Your task to perform on an android device: Go to sound settings Image 0: 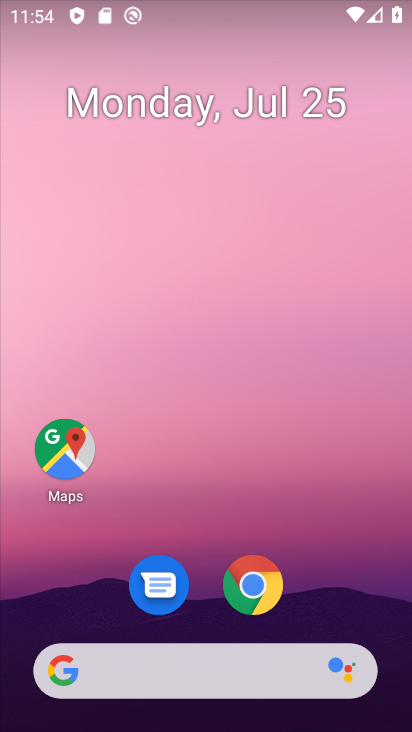
Step 0: drag from (325, 565) to (303, 31)
Your task to perform on an android device: Go to sound settings Image 1: 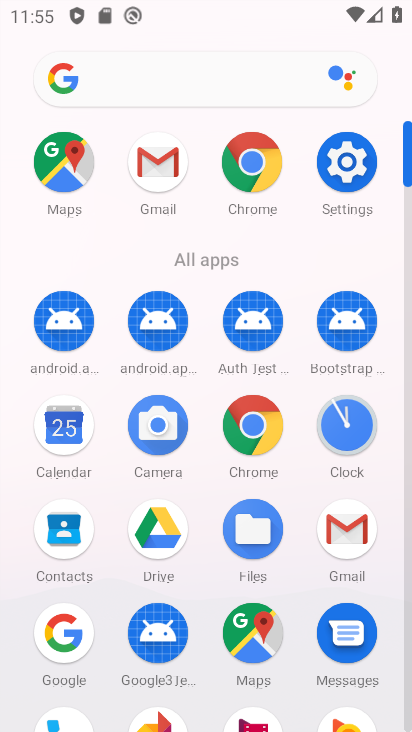
Step 1: click (335, 157)
Your task to perform on an android device: Go to sound settings Image 2: 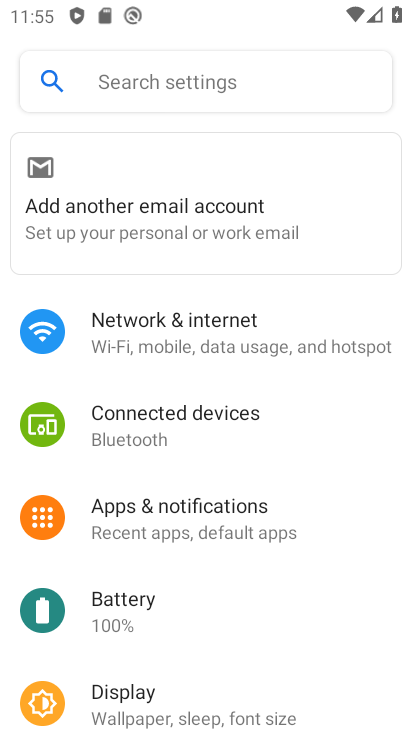
Step 2: drag from (198, 639) to (208, 197)
Your task to perform on an android device: Go to sound settings Image 3: 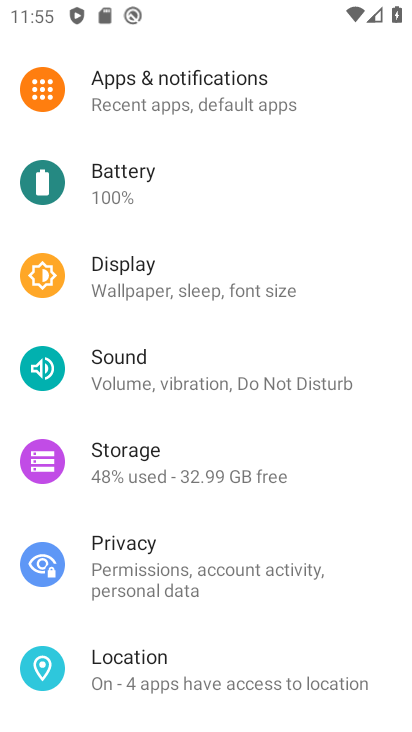
Step 3: click (220, 373)
Your task to perform on an android device: Go to sound settings Image 4: 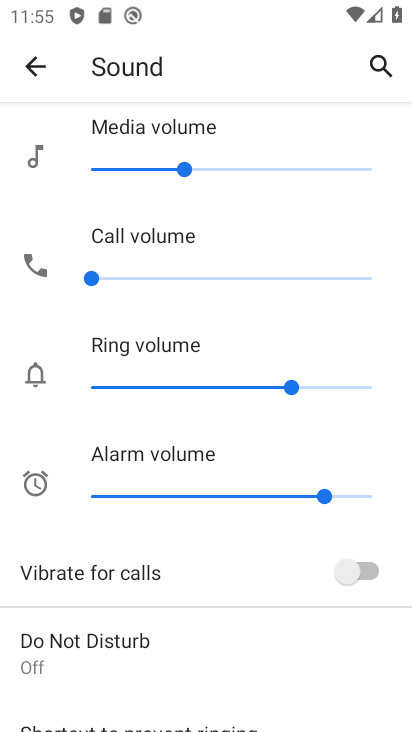
Step 4: task complete